Your task to perform on an android device: Open Google Chrome Image 0: 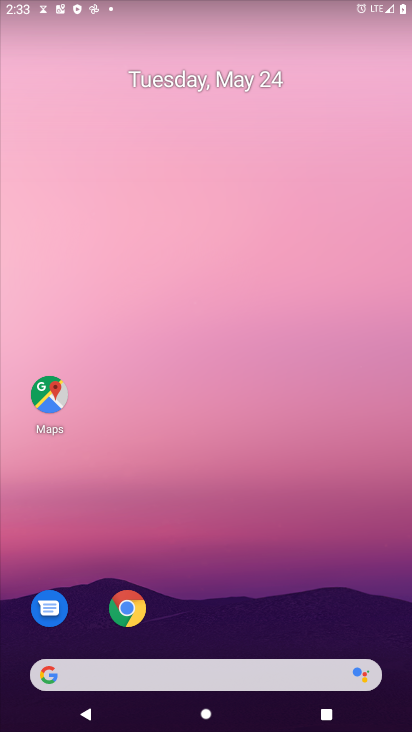
Step 0: drag from (284, 695) to (155, 223)
Your task to perform on an android device: Open Google Chrome Image 1: 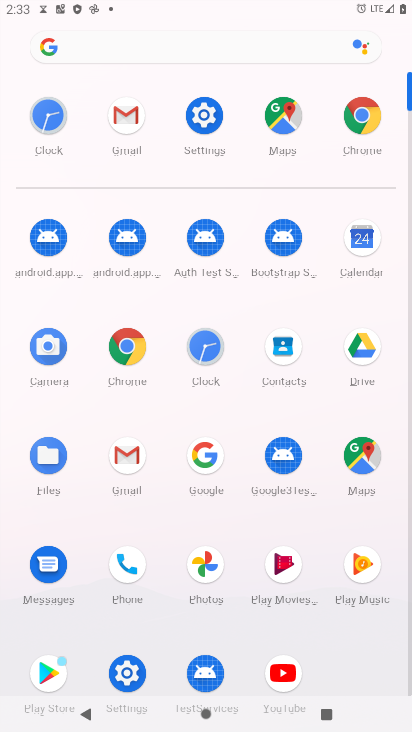
Step 1: click (281, 140)
Your task to perform on an android device: Open Google Chrome Image 2: 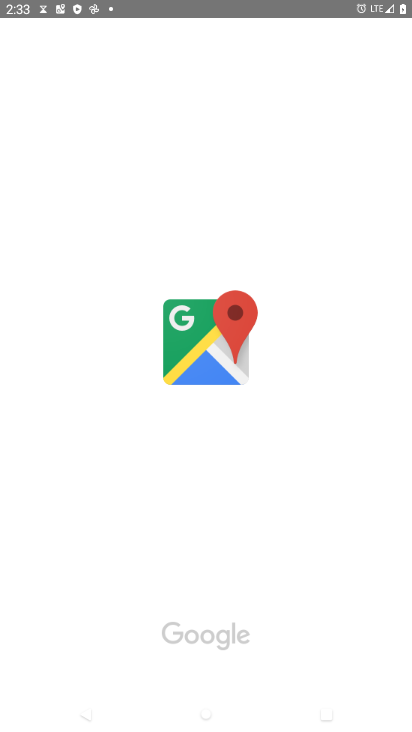
Step 2: click (375, 122)
Your task to perform on an android device: Open Google Chrome Image 3: 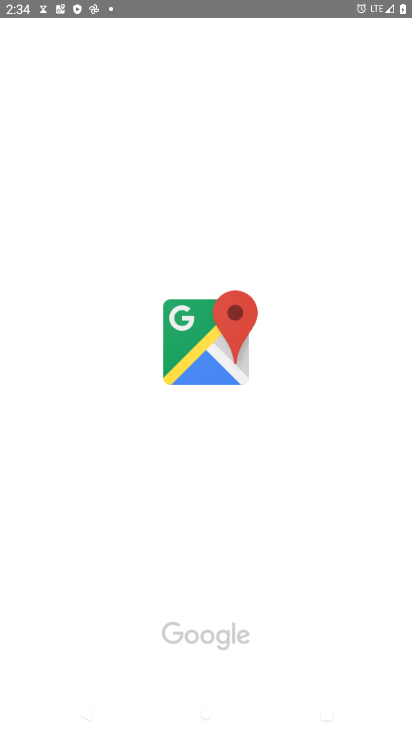
Step 3: press home button
Your task to perform on an android device: Open Google Chrome Image 4: 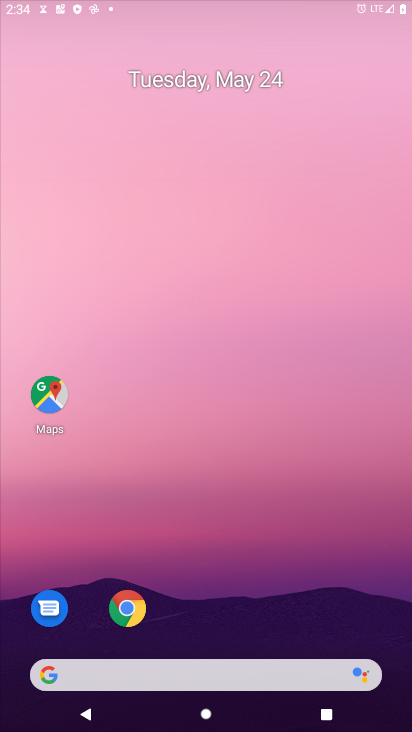
Step 4: drag from (272, 686) to (246, 184)
Your task to perform on an android device: Open Google Chrome Image 5: 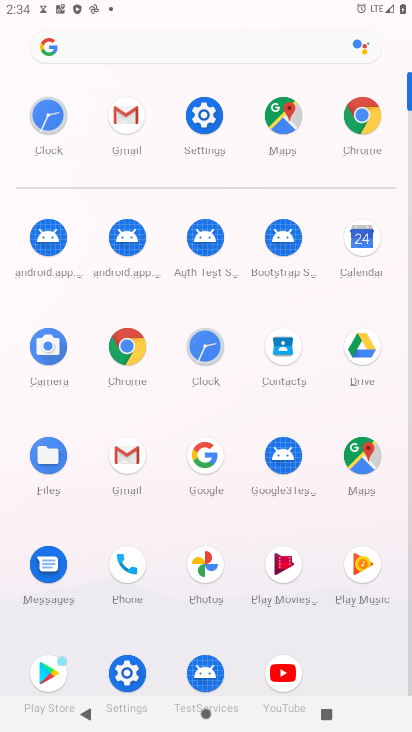
Step 5: click (354, 113)
Your task to perform on an android device: Open Google Chrome Image 6: 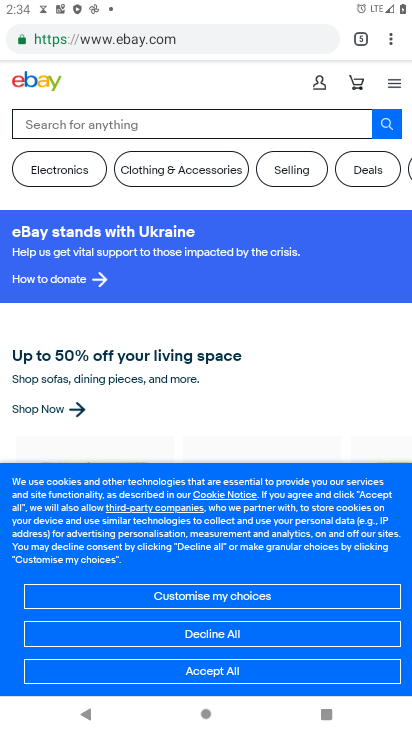
Step 6: click (352, 34)
Your task to perform on an android device: Open Google Chrome Image 7: 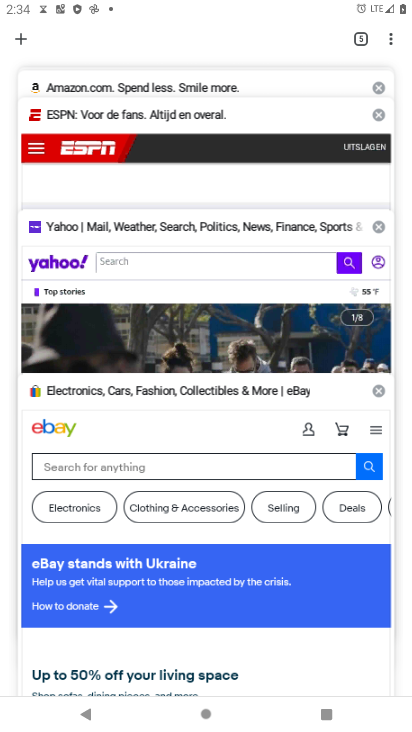
Step 7: click (28, 49)
Your task to perform on an android device: Open Google Chrome Image 8: 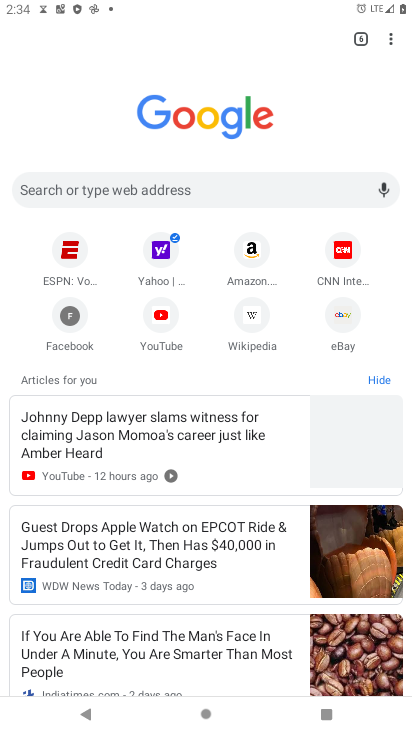
Step 8: task complete